Your task to perform on an android device: toggle notification dots Image 0: 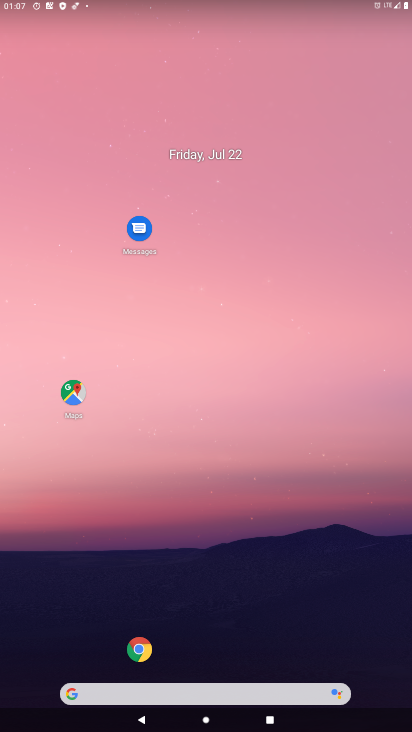
Step 0: drag from (21, 691) to (324, 214)
Your task to perform on an android device: toggle notification dots Image 1: 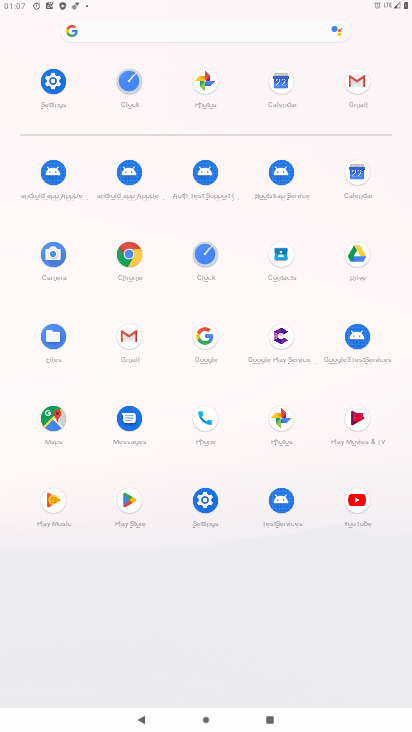
Step 1: click (200, 497)
Your task to perform on an android device: toggle notification dots Image 2: 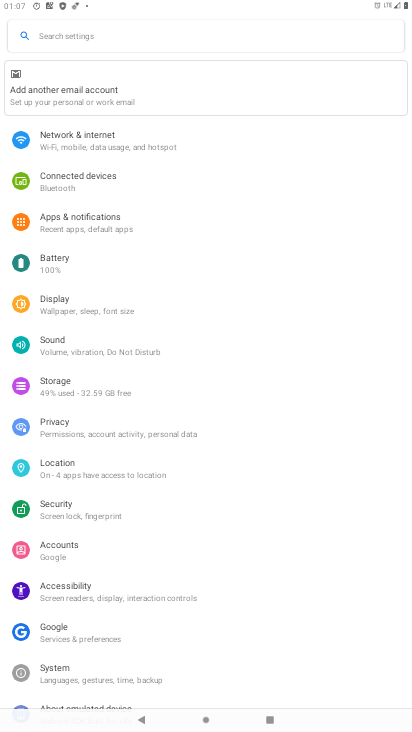
Step 2: click (82, 226)
Your task to perform on an android device: toggle notification dots Image 3: 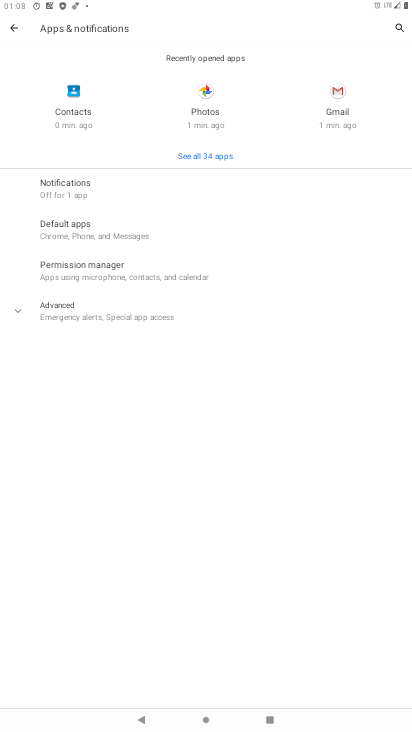
Step 3: click (131, 193)
Your task to perform on an android device: toggle notification dots Image 4: 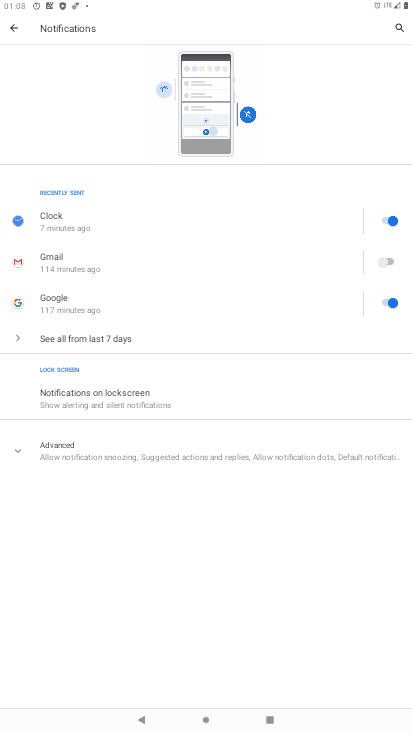
Step 4: click (114, 452)
Your task to perform on an android device: toggle notification dots Image 5: 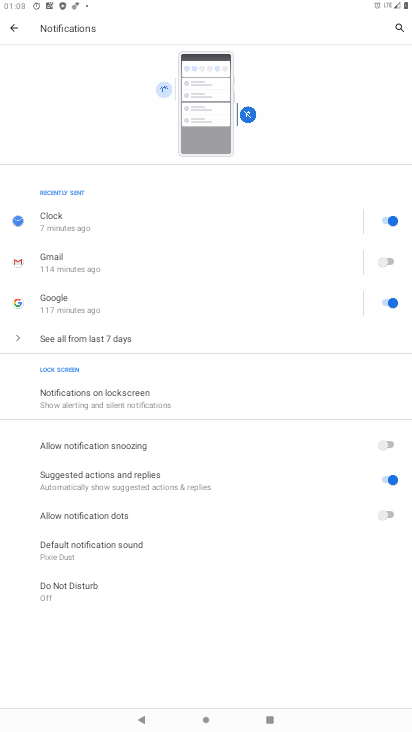
Step 5: click (383, 508)
Your task to perform on an android device: toggle notification dots Image 6: 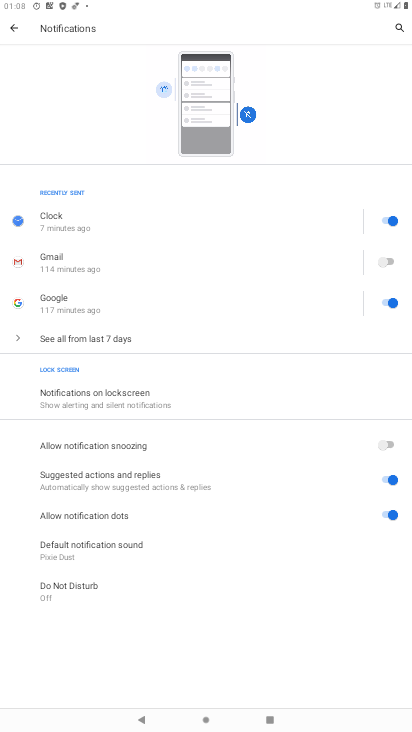
Step 6: task complete